Your task to perform on an android device: toggle wifi Image 0: 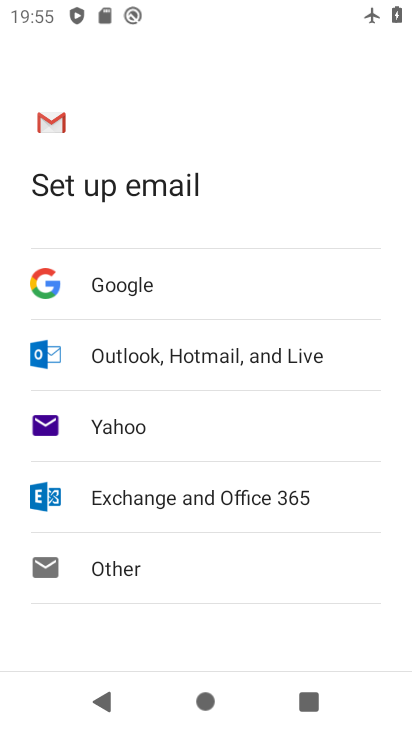
Step 0: press home button
Your task to perform on an android device: toggle wifi Image 1: 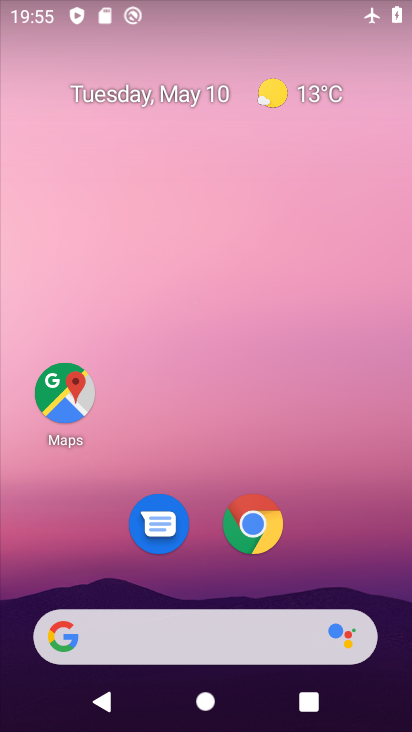
Step 1: drag from (354, 504) to (226, 12)
Your task to perform on an android device: toggle wifi Image 2: 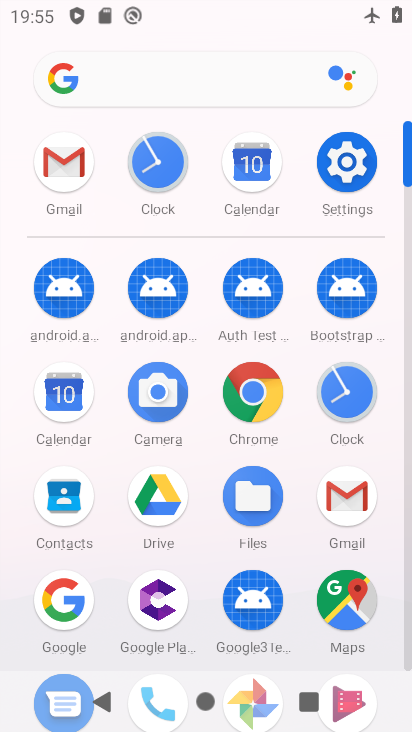
Step 2: click (350, 175)
Your task to perform on an android device: toggle wifi Image 3: 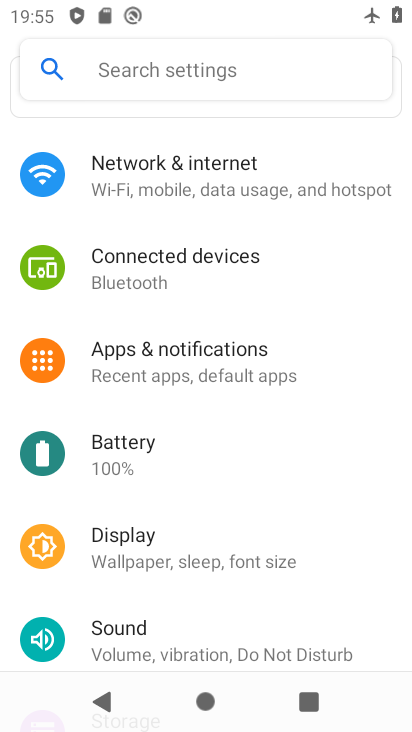
Step 3: click (269, 171)
Your task to perform on an android device: toggle wifi Image 4: 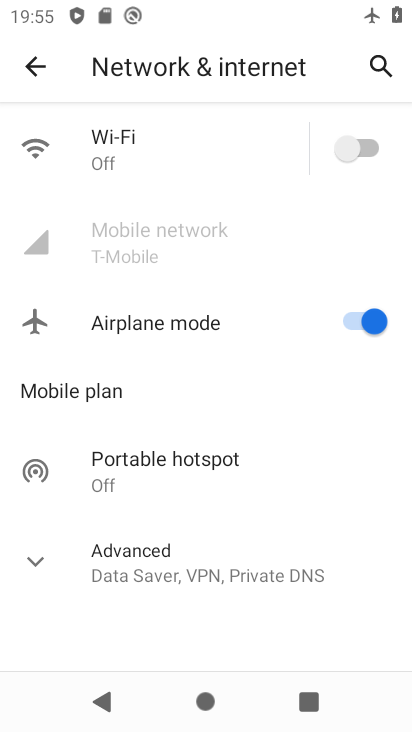
Step 4: click (361, 143)
Your task to perform on an android device: toggle wifi Image 5: 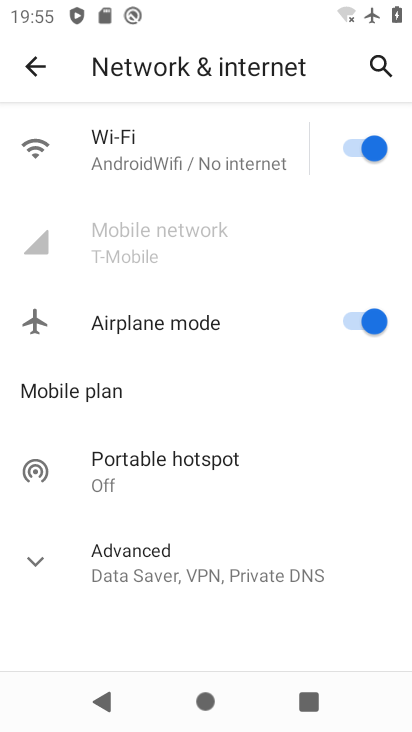
Step 5: task complete